Your task to perform on an android device: Open the calendar app, open the side menu, and click the "Day" option Image 0: 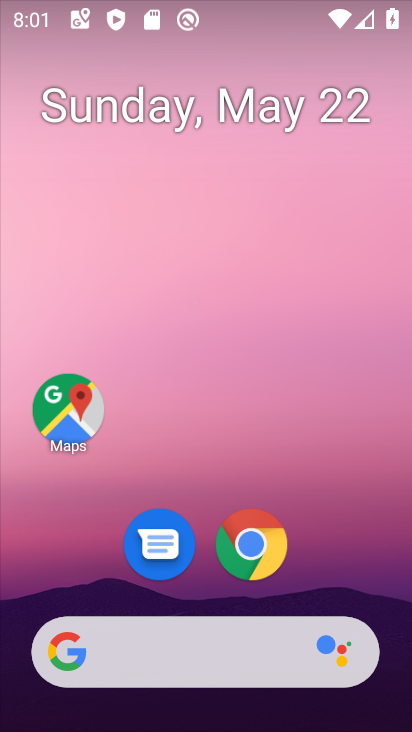
Step 0: drag from (308, 561) to (334, 143)
Your task to perform on an android device: Open the calendar app, open the side menu, and click the "Day" option Image 1: 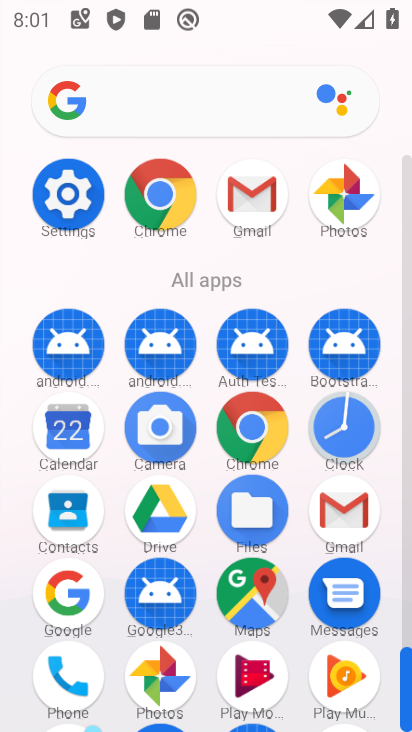
Step 1: click (59, 433)
Your task to perform on an android device: Open the calendar app, open the side menu, and click the "Day" option Image 2: 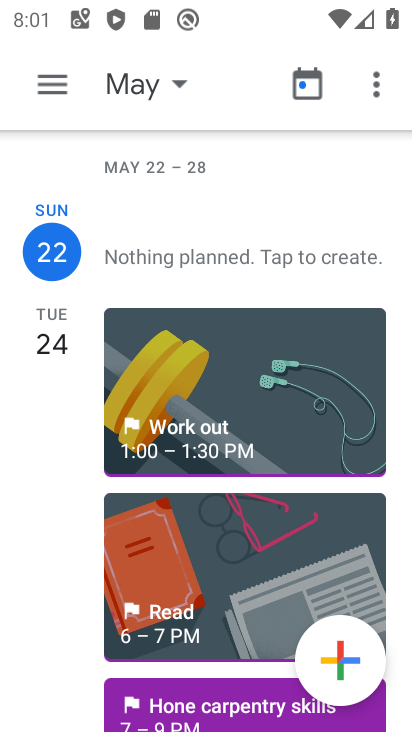
Step 2: click (57, 82)
Your task to perform on an android device: Open the calendar app, open the side menu, and click the "Day" option Image 3: 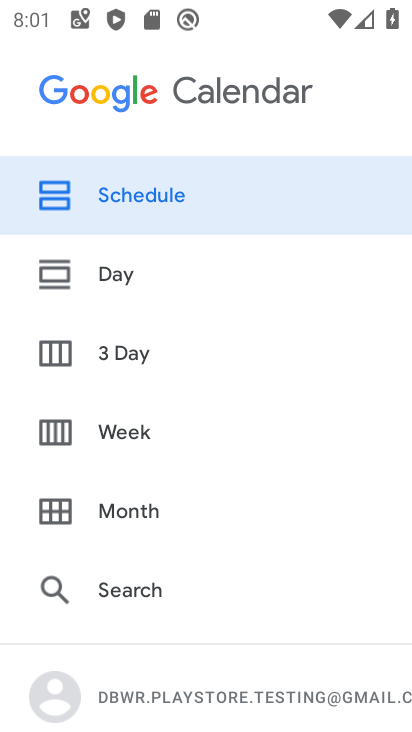
Step 3: click (112, 271)
Your task to perform on an android device: Open the calendar app, open the side menu, and click the "Day" option Image 4: 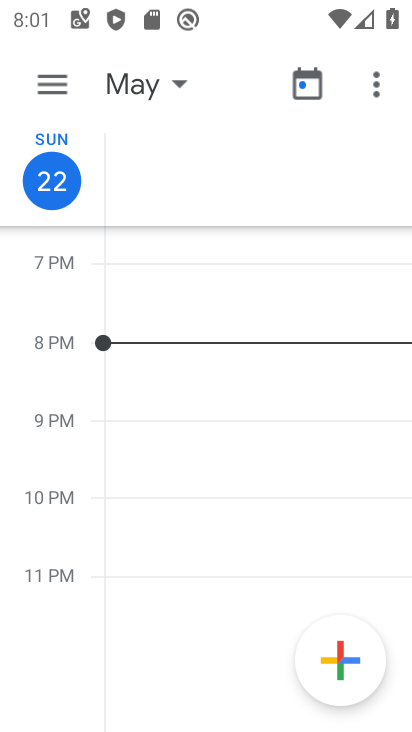
Step 4: task complete